Your task to perform on an android device: toggle wifi Image 0: 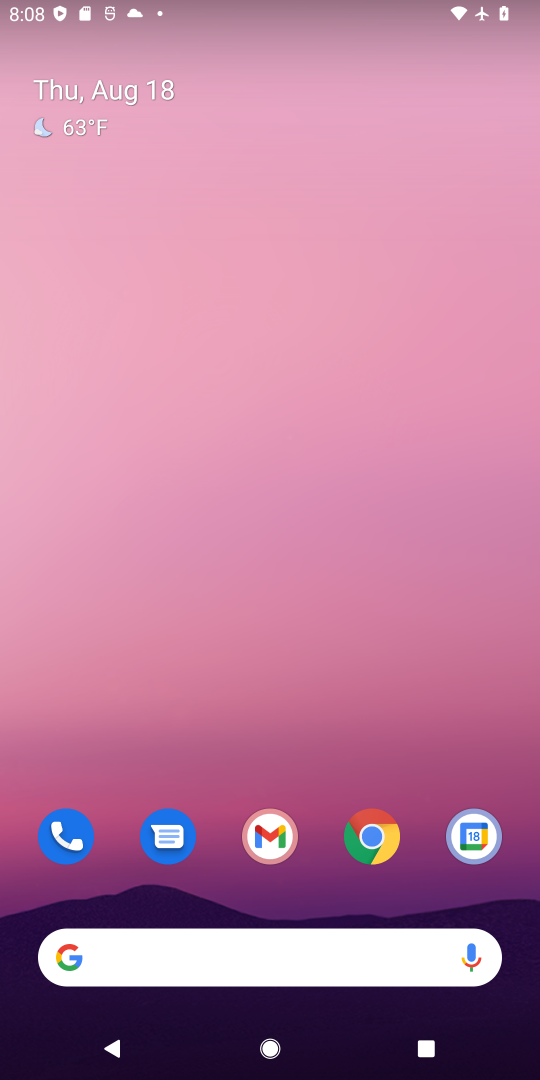
Step 0: drag from (376, 666) to (363, 95)
Your task to perform on an android device: toggle wifi Image 1: 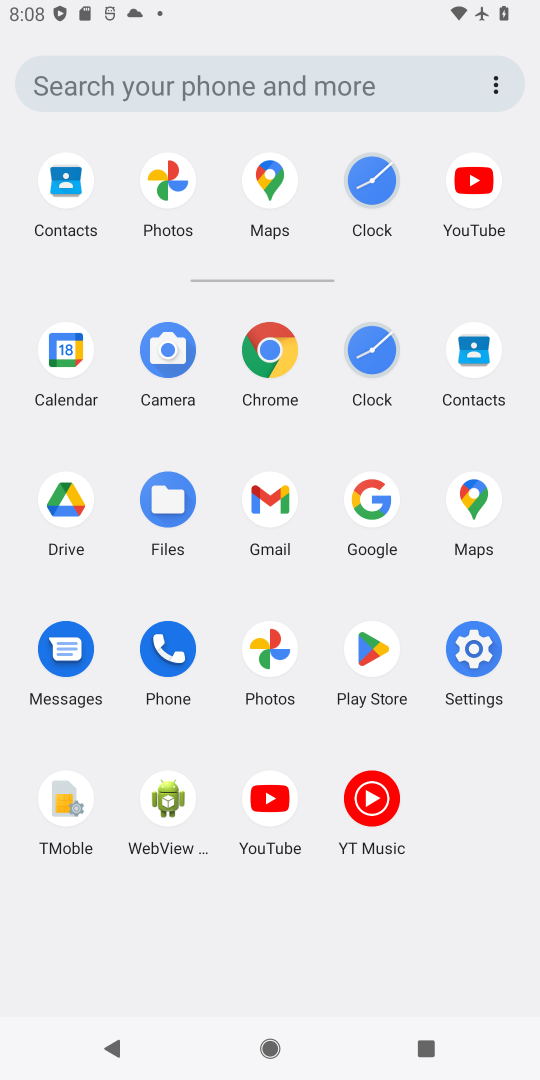
Step 1: click (481, 655)
Your task to perform on an android device: toggle wifi Image 2: 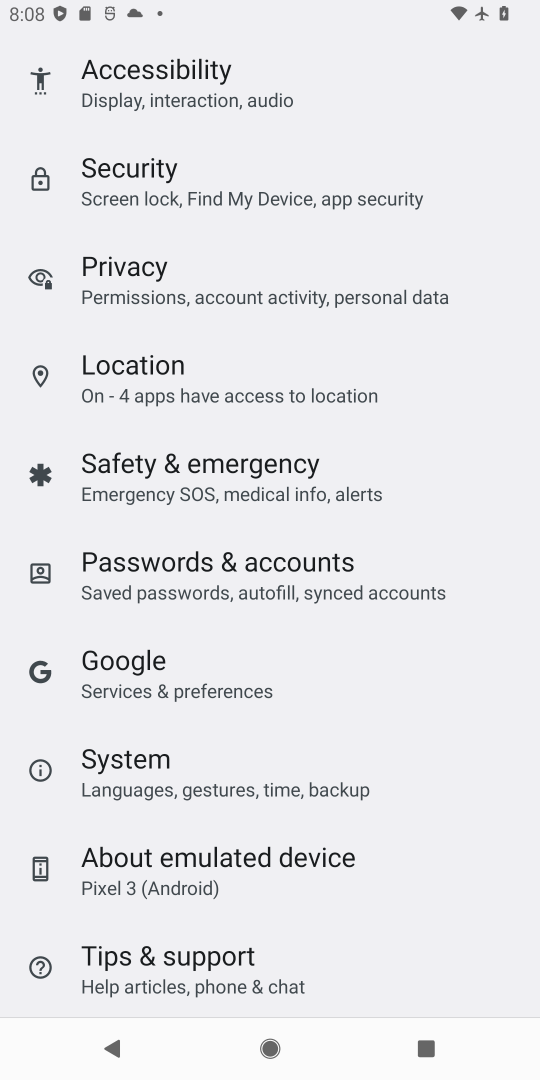
Step 2: drag from (294, 138) to (274, 866)
Your task to perform on an android device: toggle wifi Image 3: 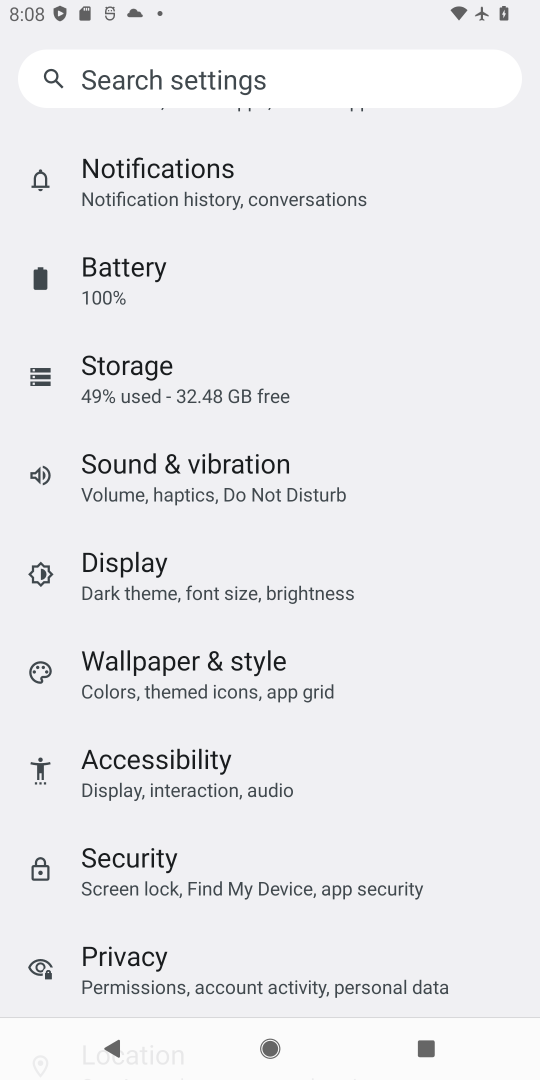
Step 3: drag from (354, 283) to (334, 891)
Your task to perform on an android device: toggle wifi Image 4: 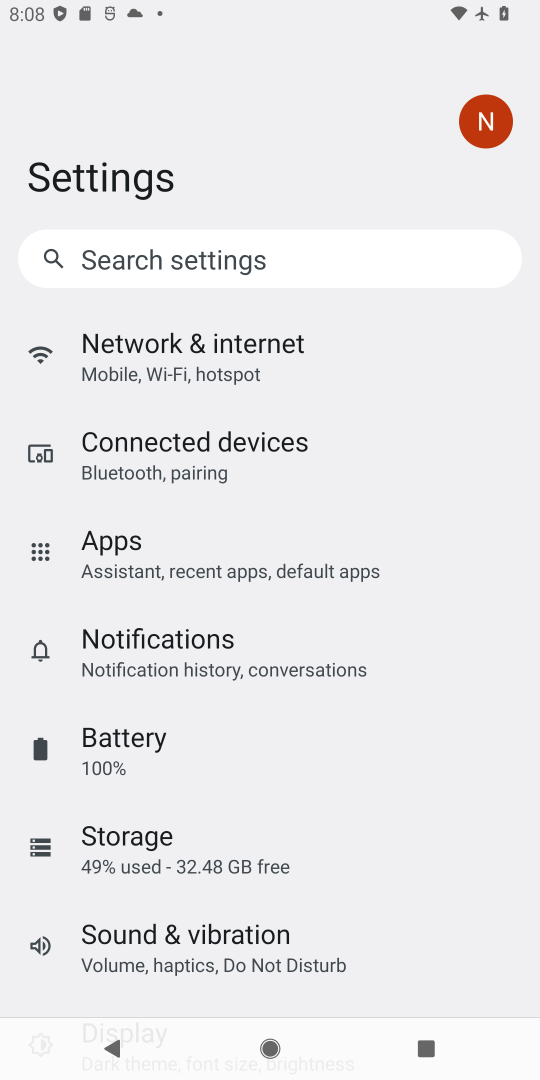
Step 4: click (264, 353)
Your task to perform on an android device: toggle wifi Image 5: 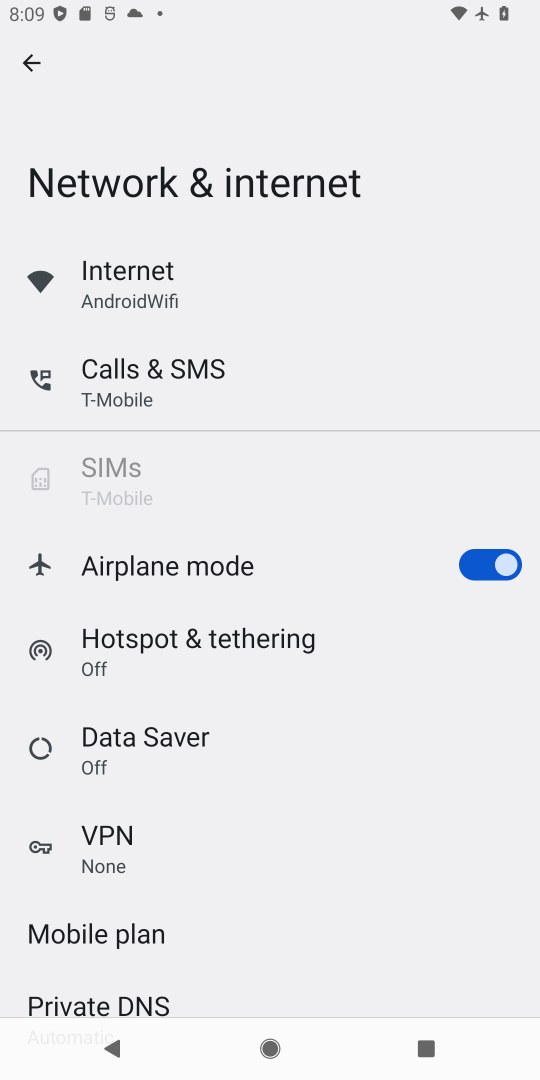
Step 5: click (181, 309)
Your task to perform on an android device: toggle wifi Image 6: 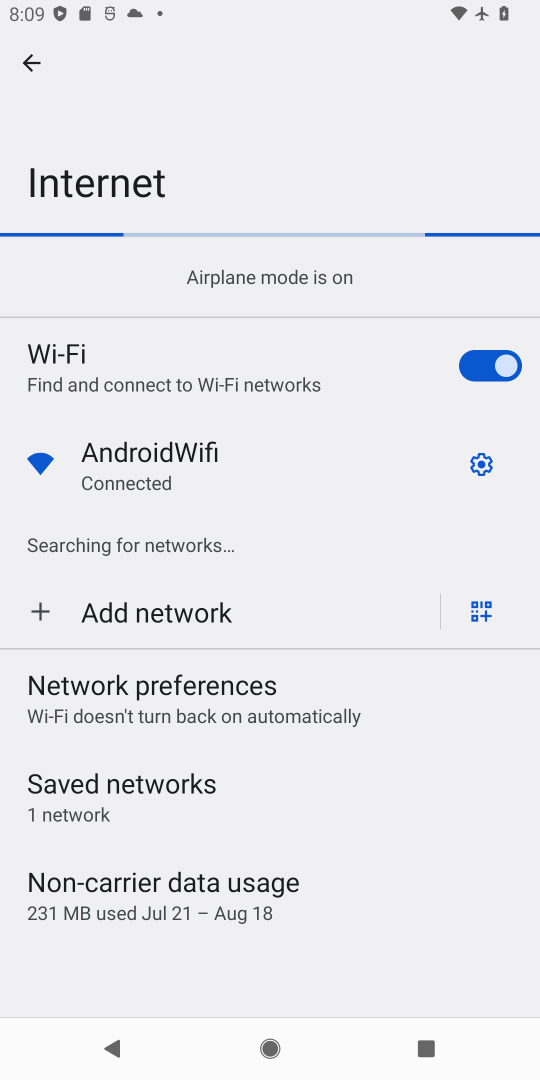
Step 6: click (477, 393)
Your task to perform on an android device: toggle wifi Image 7: 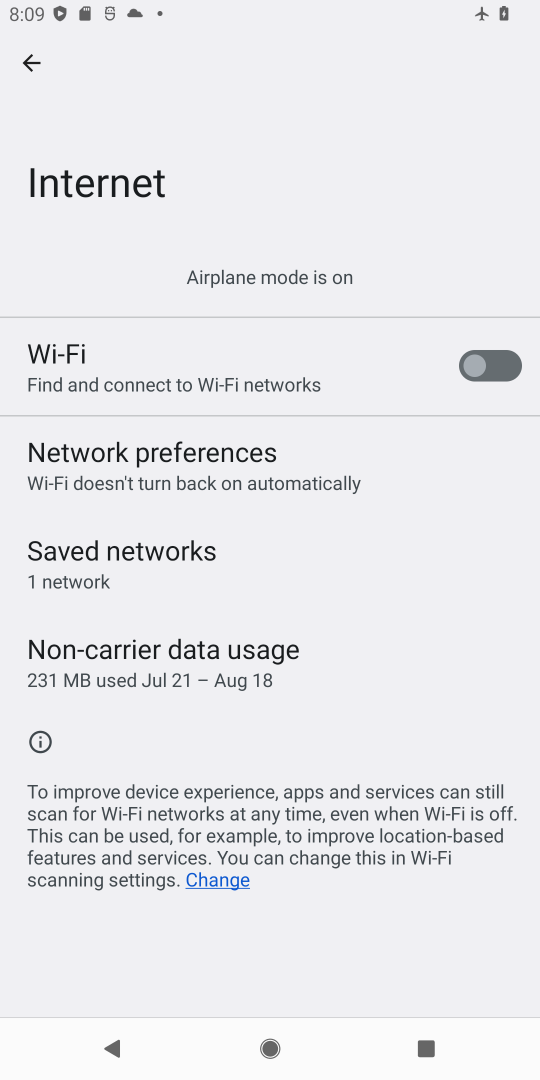
Step 7: task complete